Your task to perform on an android device: turn on wifi Image 0: 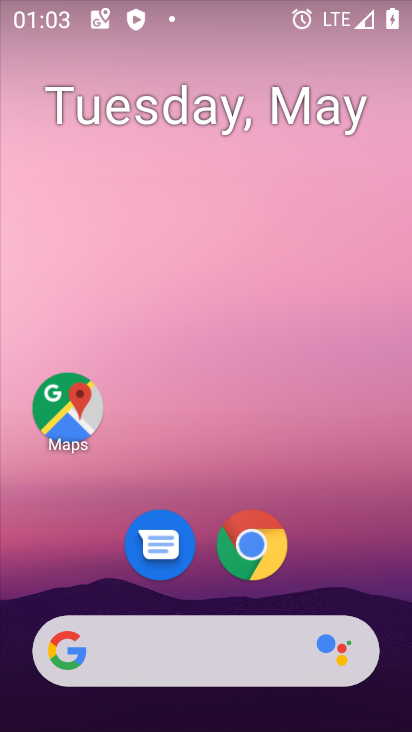
Step 0: drag from (315, 595) to (296, 126)
Your task to perform on an android device: turn on wifi Image 1: 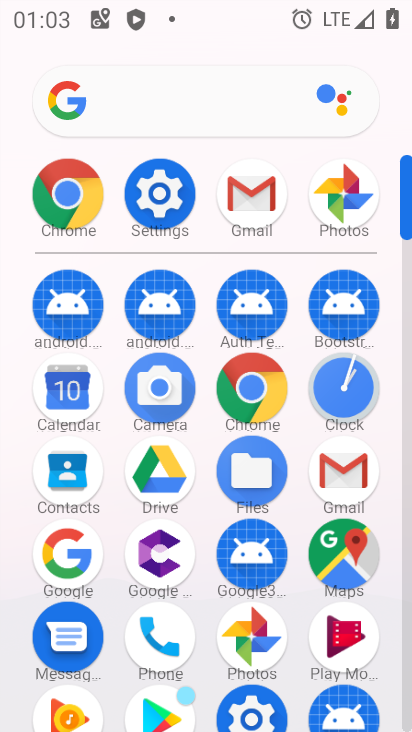
Step 1: click (171, 194)
Your task to perform on an android device: turn on wifi Image 2: 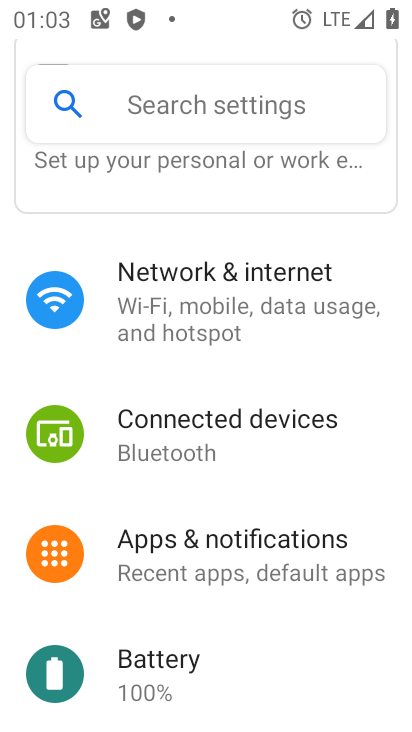
Step 2: click (243, 279)
Your task to perform on an android device: turn on wifi Image 3: 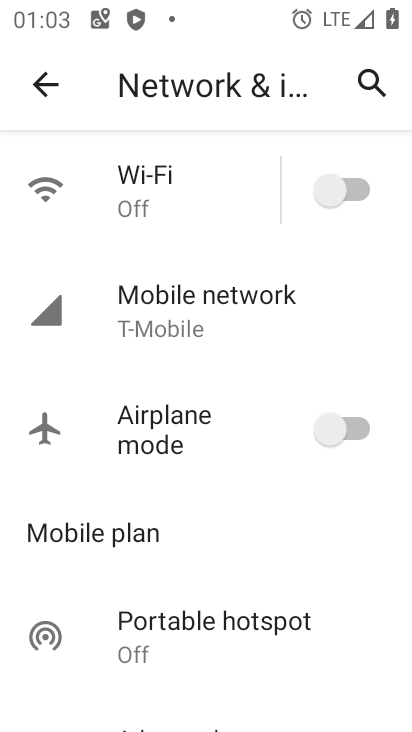
Step 3: click (311, 197)
Your task to perform on an android device: turn on wifi Image 4: 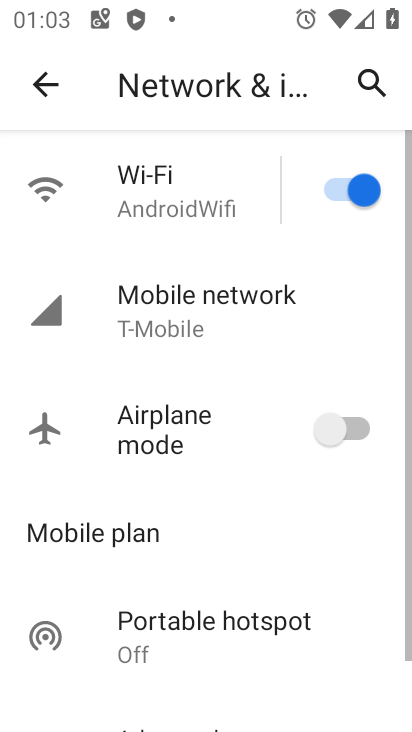
Step 4: task complete